Your task to perform on an android device: Go to Reddit.com Image 0: 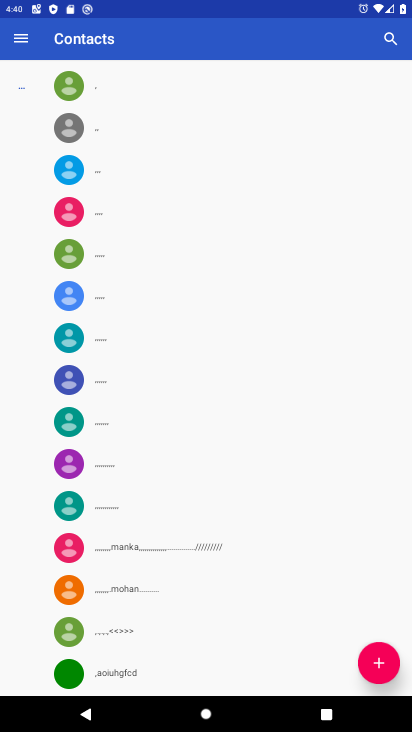
Step 0: press home button
Your task to perform on an android device: Go to Reddit.com Image 1: 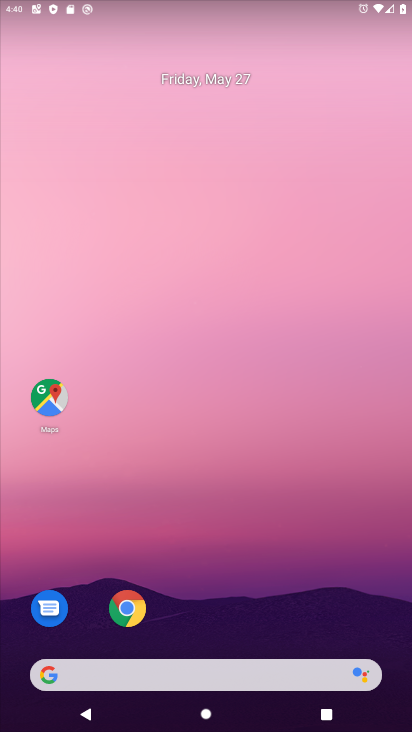
Step 1: drag from (151, 565) to (151, 336)
Your task to perform on an android device: Go to Reddit.com Image 2: 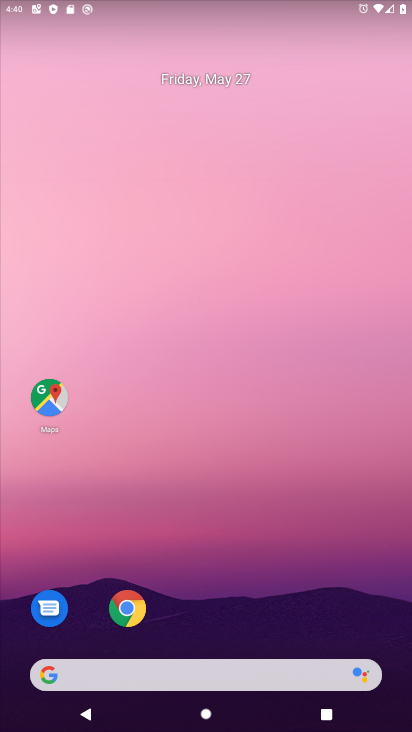
Step 2: drag from (192, 633) to (250, 179)
Your task to perform on an android device: Go to Reddit.com Image 3: 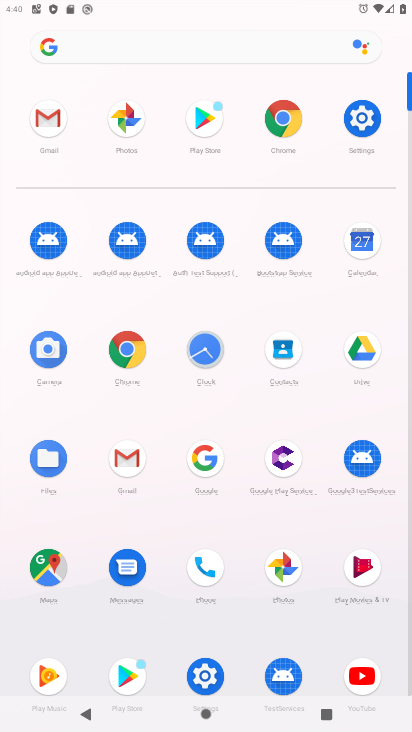
Step 3: click (196, 469)
Your task to perform on an android device: Go to Reddit.com Image 4: 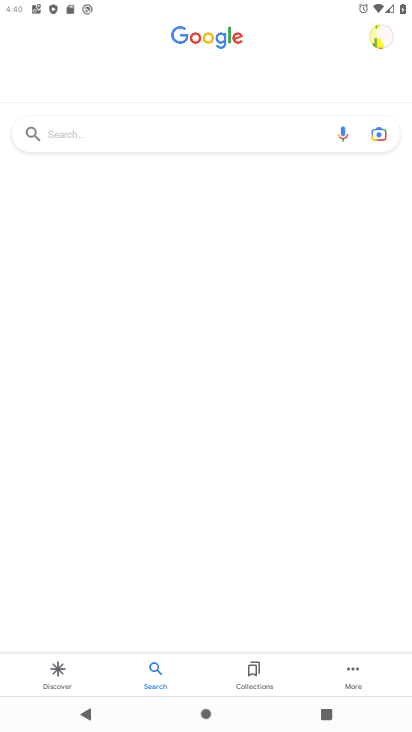
Step 4: click (116, 138)
Your task to perform on an android device: Go to Reddit.com Image 5: 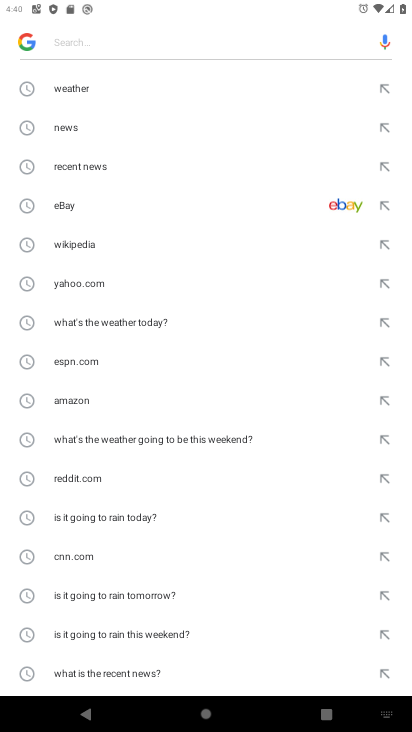
Step 5: click (81, 476)
Your task to perform on an android device: Go to Reddit.com Image 6: 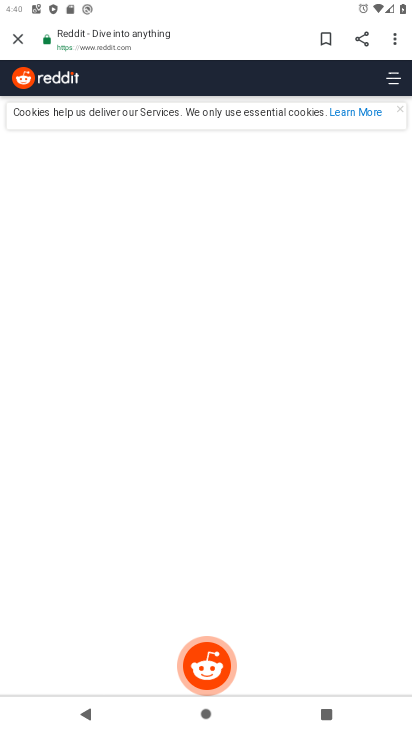
Step 6: task complete